Your task to perform on an android device: open app "Viber Messenger" (install if not already installed), go to login, and select forgot password Image 0: 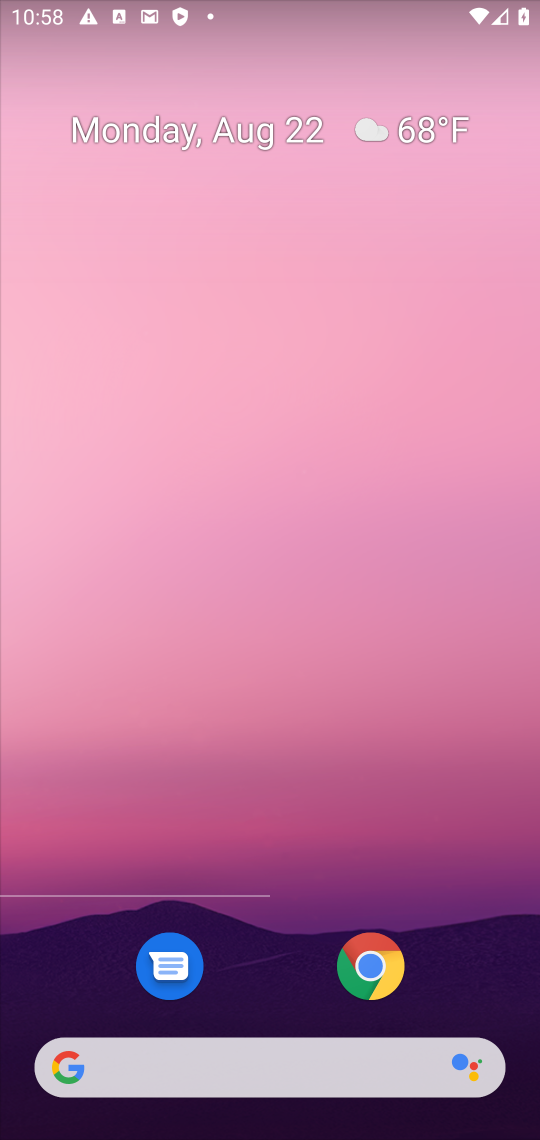
Step 0: press home button
Your task to perform on an android device: open app "Viber Messenger" (install if not already installed), go to login, and select forgot password Image 1: 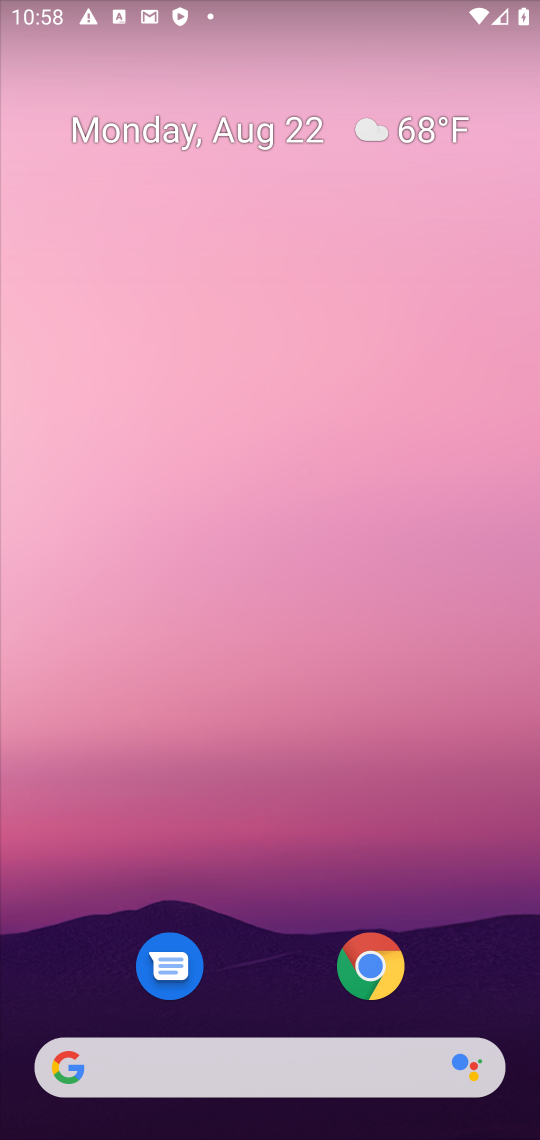
Step 1: drag from (452, 993) to (464, 108)
Your task to perform on an android device: open app "Viber Messenger" (install if not already installed), go to login, and select forgot password Image 2: 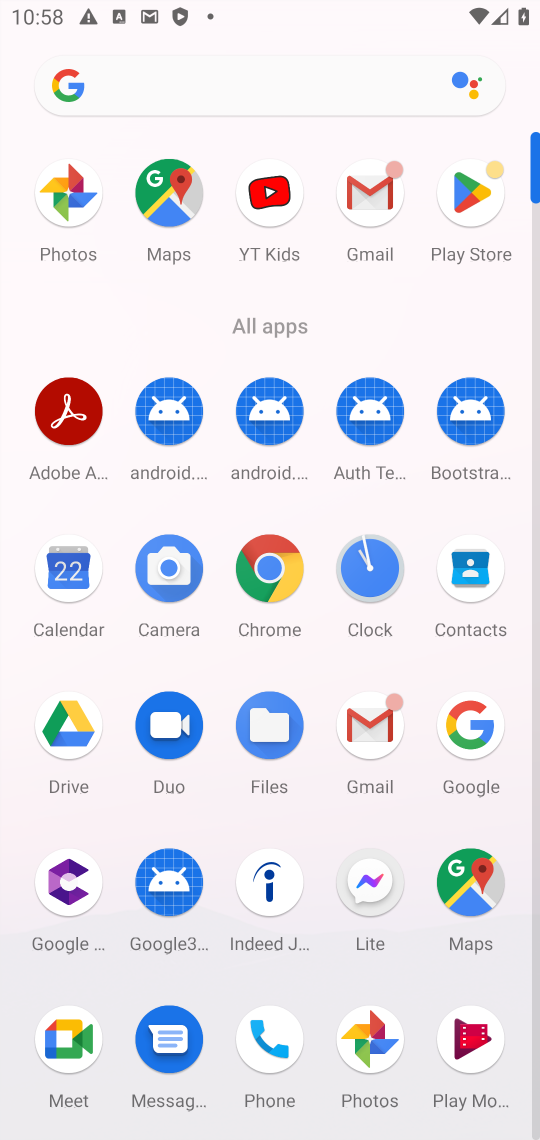
Step 2: click (471, 189)
Your task to perform on an android device: open app "Viber Messenger" (install if not already installed), go to login, and select forgot password Image 3: 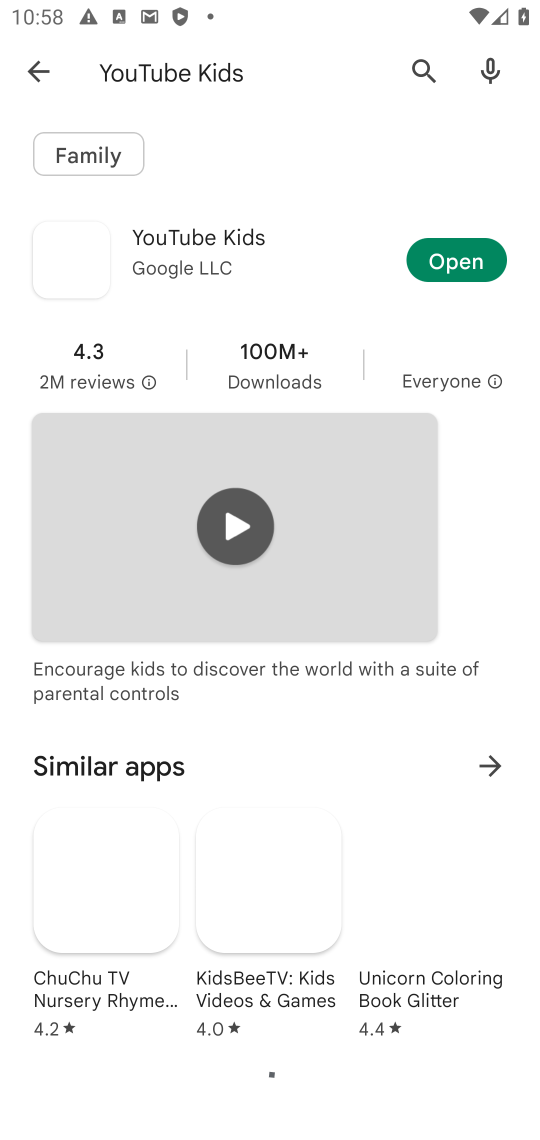
Step 3: press back button
Your task to perform on an android device: open app "Viber Messenger" (install if not already installed), go to login, and select forgot password Image 4: 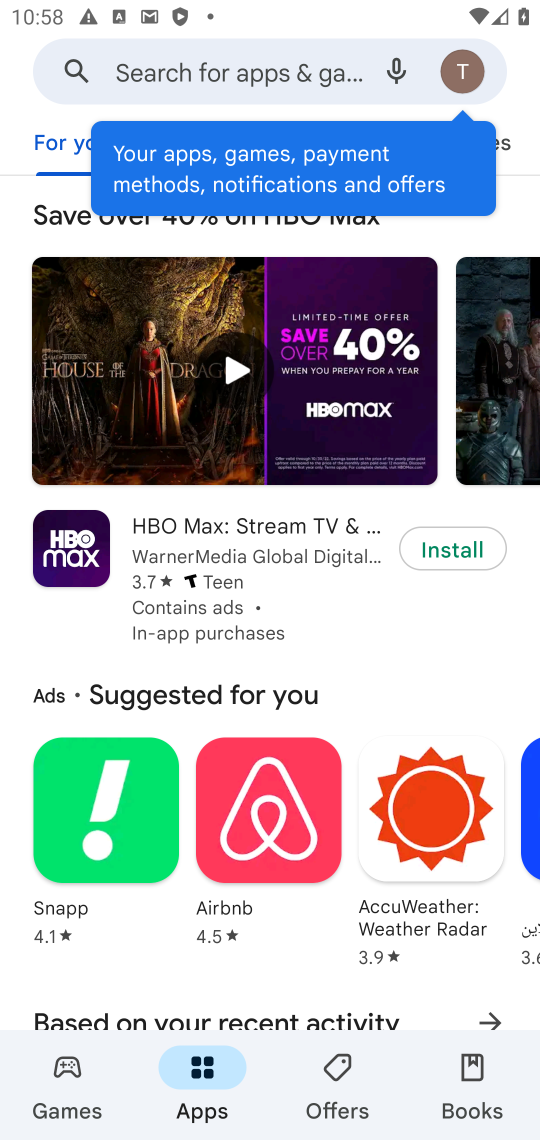
Step 4: click (200, 69)
Your task to perform on an android device: open app "Viber Messenger" (install if not already installed), go to login, and select forgot password Image 5: 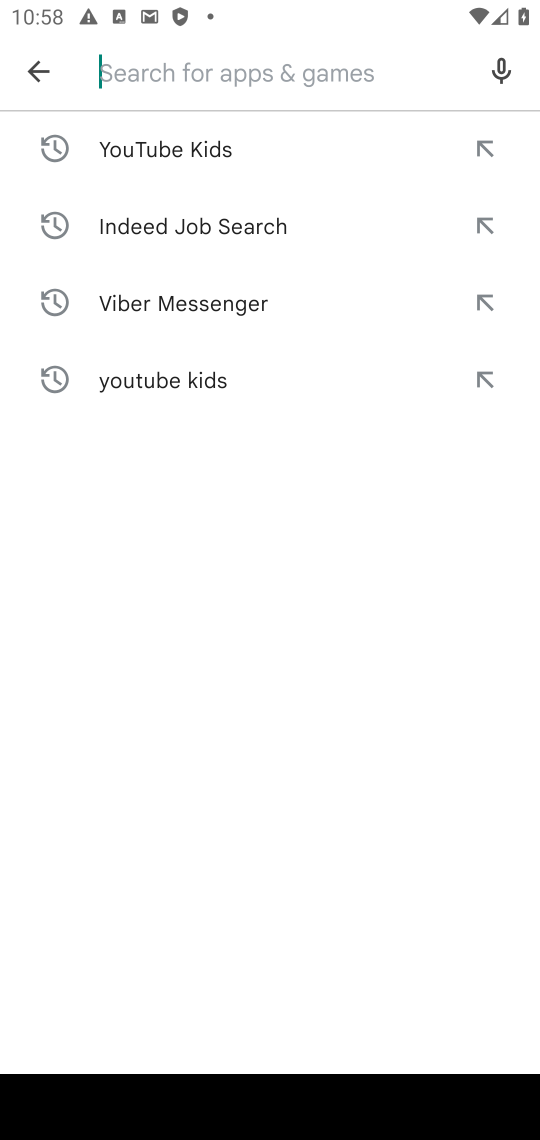
Step 5: type "Viber Messenger"
Your task to perform on an android device: open app "Viber Messenger" (install if not already installed), go to login, and select forgot password Image 6: 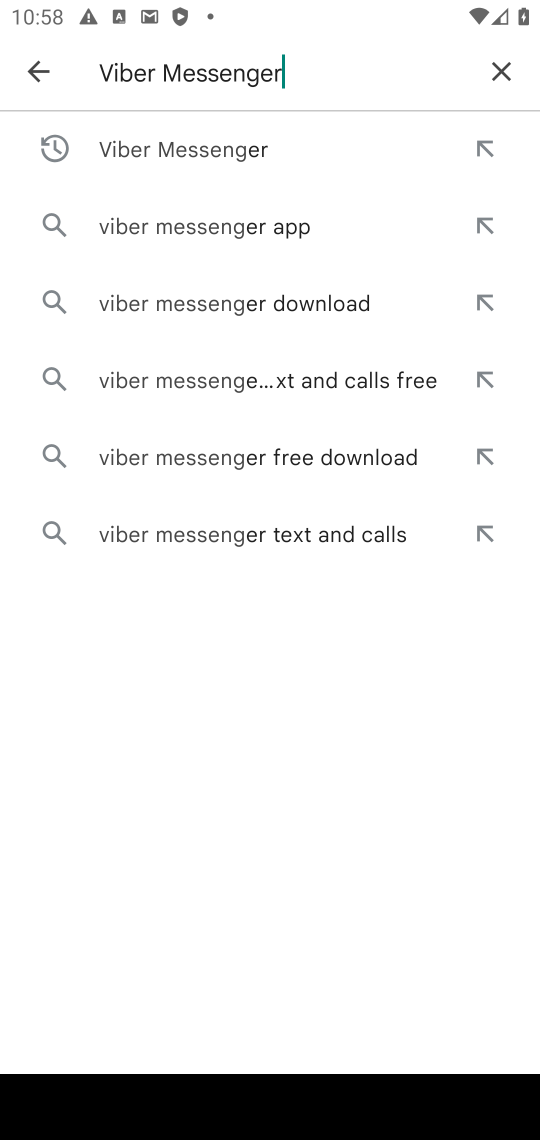
Step 6: press enter
Your task to perform on an android device: open app "Viber Messenger" (install if not already installed), go to login, and select forgot password Image 7: 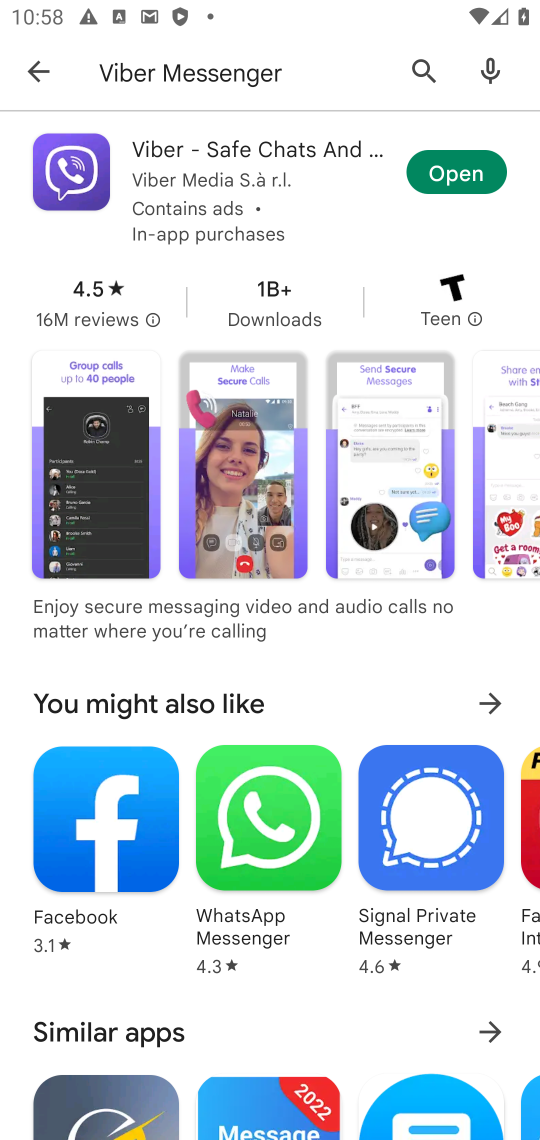
Step 7: click (466, 174)
Your task to perform on an android device: open app "Viber Messenger" (install if not already installed), go to login, and select forgot password Image 8: 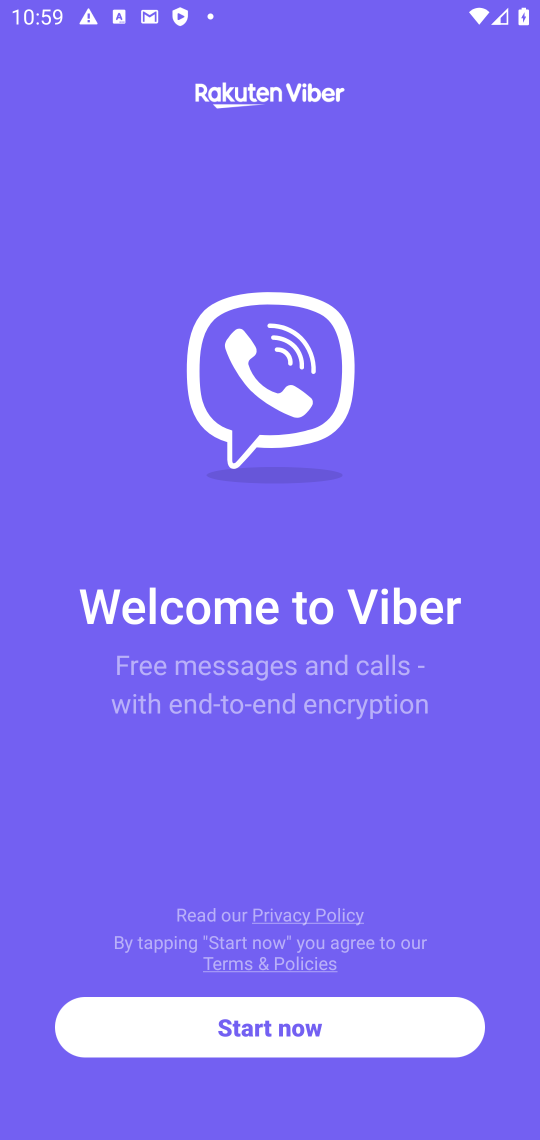
Step 8: click (363, 1018)
Your task to perform on an android device: open app "Viber Messenger" (install if not already installed), go to login, and select forgot password Image 9: 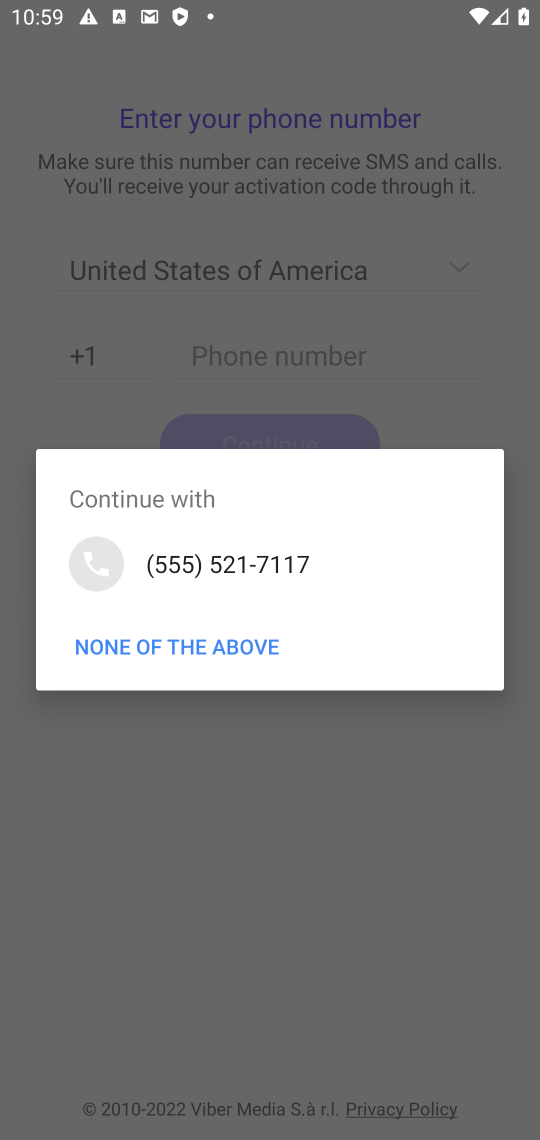
Step 9: click (235, 651)
Your task to perform on an android device: open app "Viber Messenger" (install if not already installed), go to login, and select forgot password Image 10: 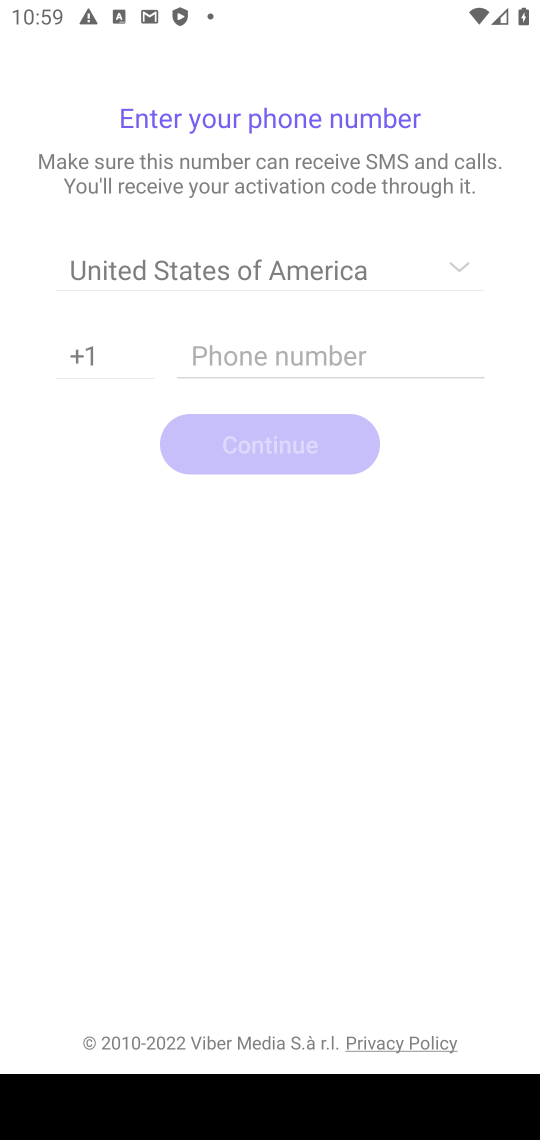
Step 10: task complete